Your task to perform on an android device: Go to Yahoo.com Image 0: 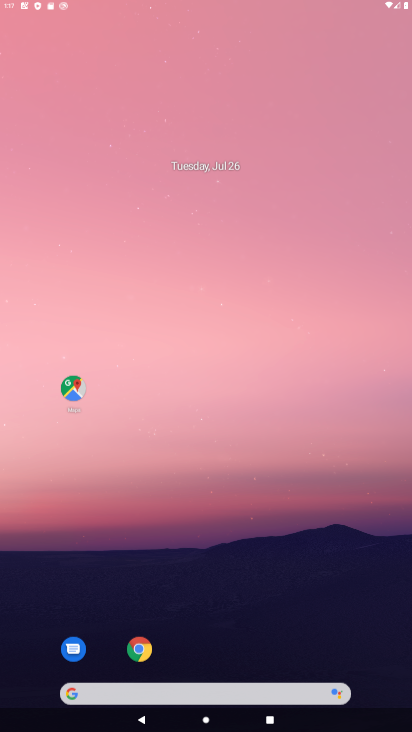
Step 0: press home button
Your task to perform on an android device: Go to Yahoo.com Image 1: 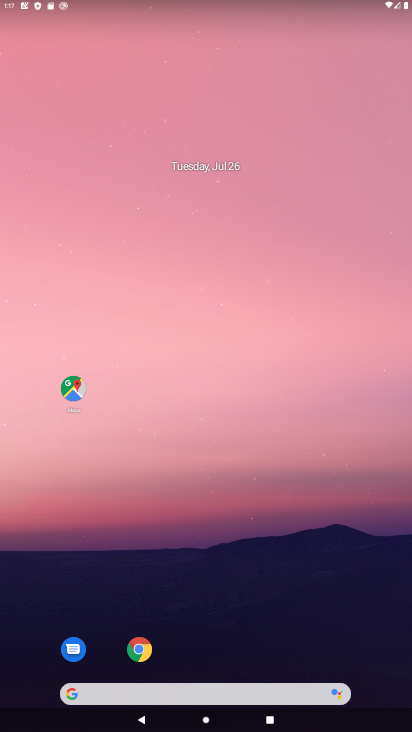
Step 1: click (137, 643)
Your task to perform on an android device: Go to Yahoo.com Image 2: 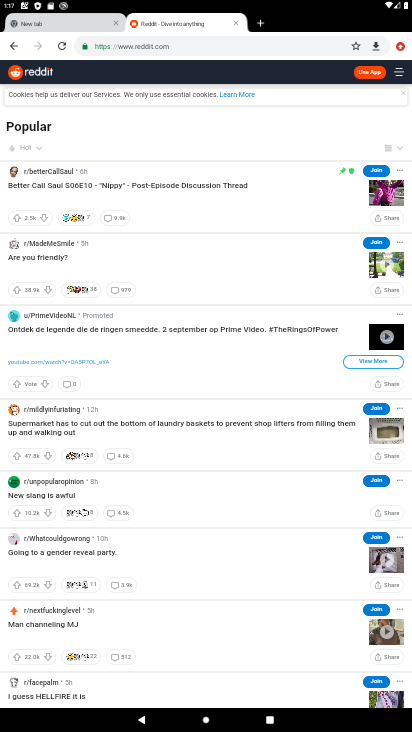
Step 2: click (263, 24)
Your task to perform on an android device: Go to Yahoo.com Image 3: 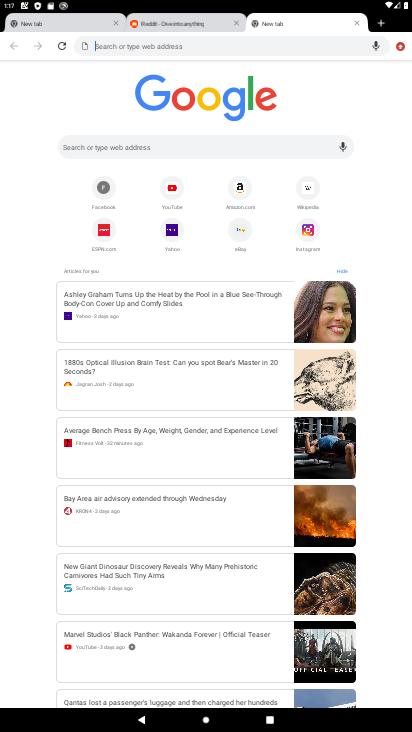
Step 3: click (173, 232)
Your task to perform on an android device: Go to Yahoo.com Image 4: 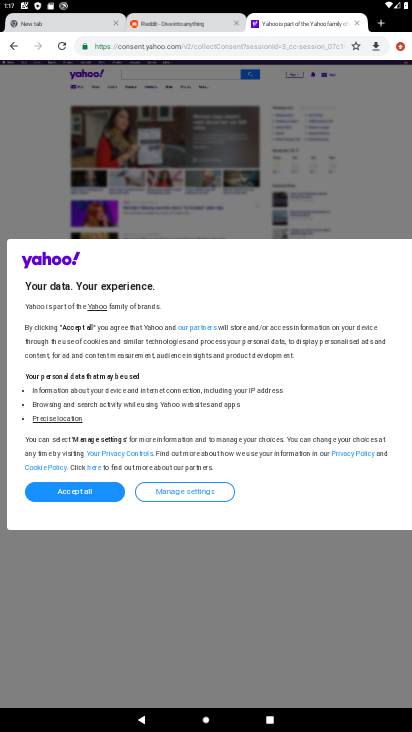
Step 4: click (75, 489)
Your task to perform on an android device: Go to Yahoo.com Image 5: 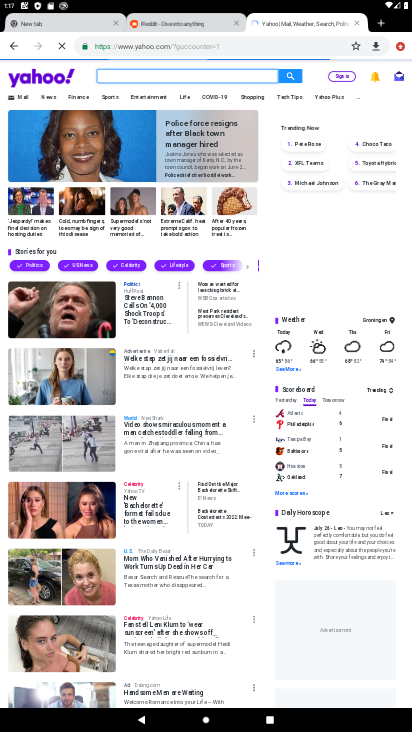
Step 5: task complete